Your task to perform on an android device: change keyboard looks Image 0: 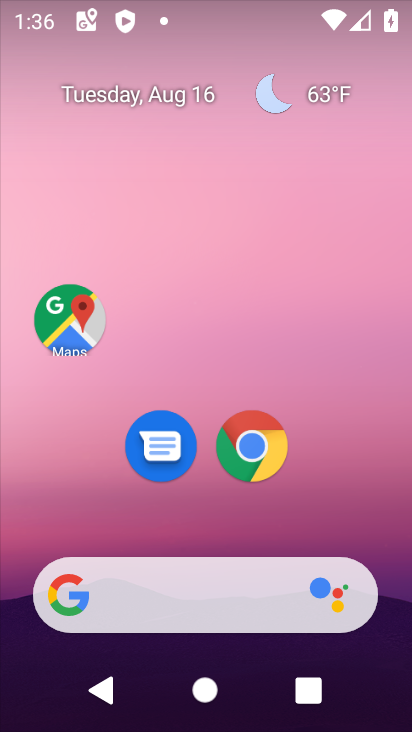
Step 0: press home button
Your task to perform on an android device: change keyboard looks Image 1: 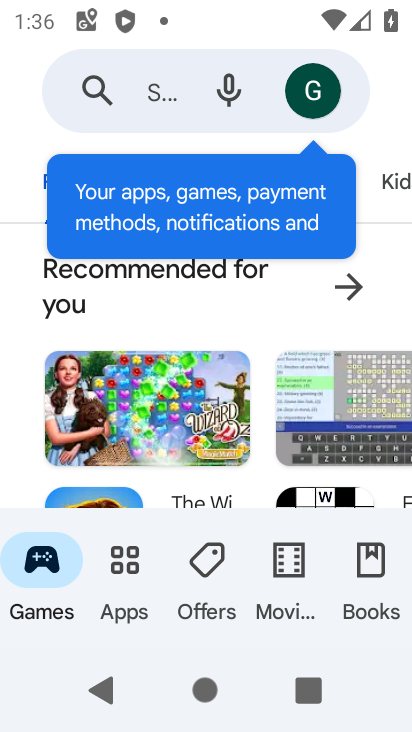
Step 1: drag from (224, 498) to (212, 42)
Your task to perform on an android device: change keyboard looks Image 2: 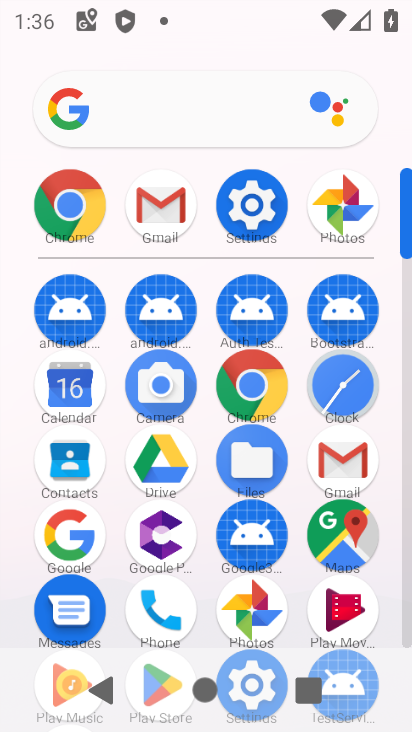
Step 2: click (250, 198)
Your task to perform on an android device: change keyboard looks Image 3: 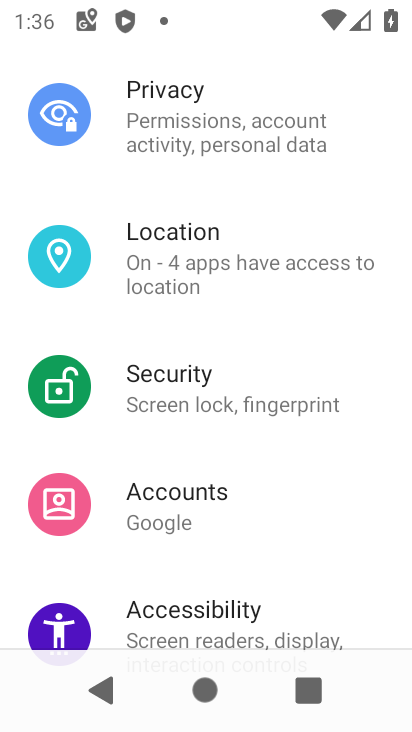
Step 3: drag from (104, 591) to (113, 21)
Your task to perform on an android device: change keyboard looks Image 4: 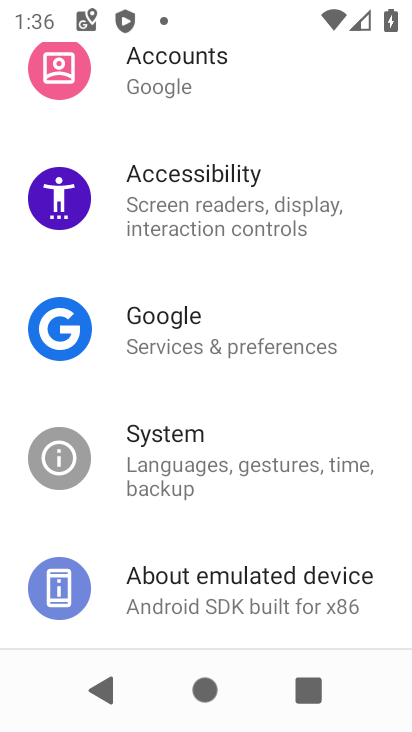
Step 4: click (105, 445)
Your task to perform on an android device: change keyboard looks Image 5: 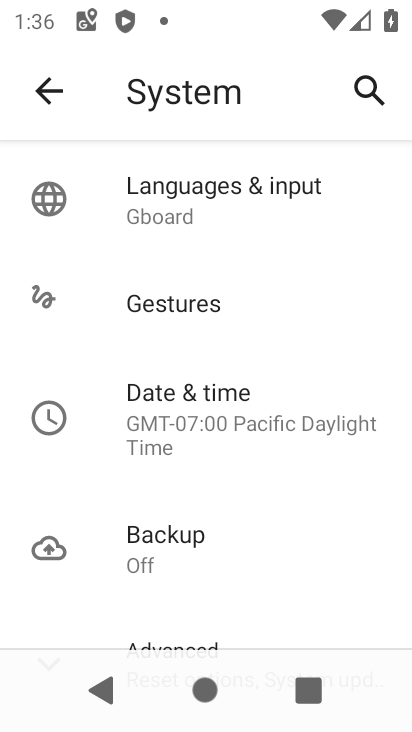
Step 5: drag from (102, 607) to (123, 573)
Your task to perform on an android device: change keyboard looks Image 6: 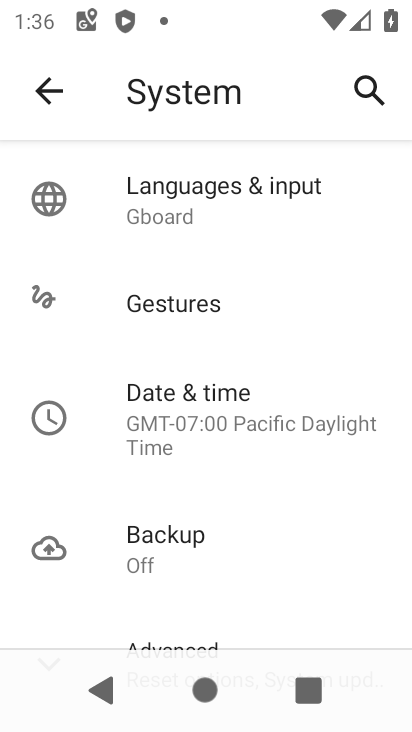
Step 6: click (100, 184)
Your task to perform on an android device: change keyboard looks Image 7: 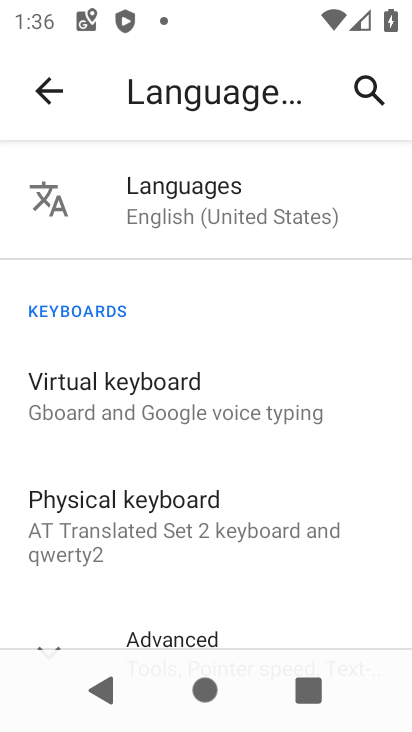
Step 7: click (209, 386)
Your task to perform on an android device: change keyboard looks Image 8: 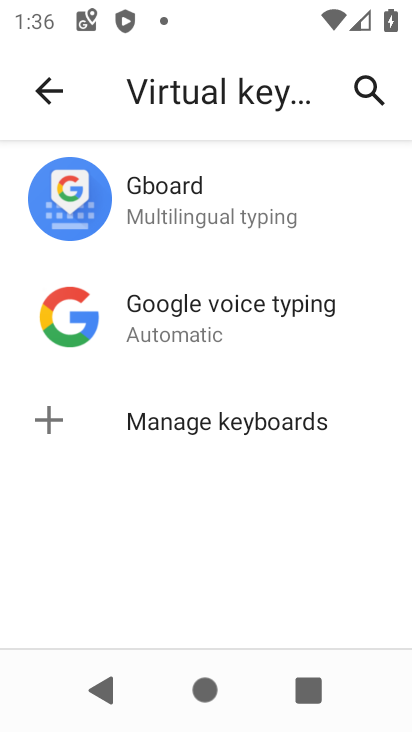
Step 8: click (159, 207)
Your task to perform on an android device: change keyboard looks Image 9: 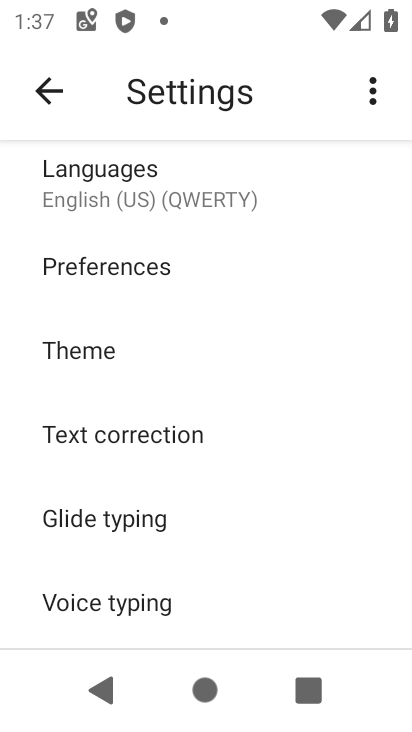
Step 9: click (129, 341)
Your task to perform on an android device: change keyboard looks Image 10: 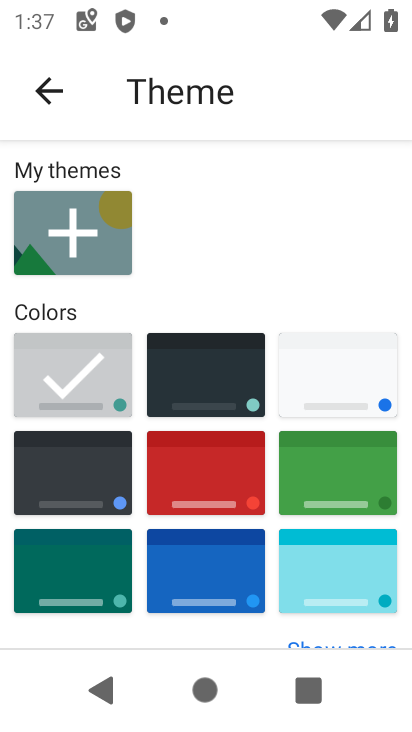
Step 10: click (219, 485)
Your task to perform on an android device: change keyboard looks Image 11: 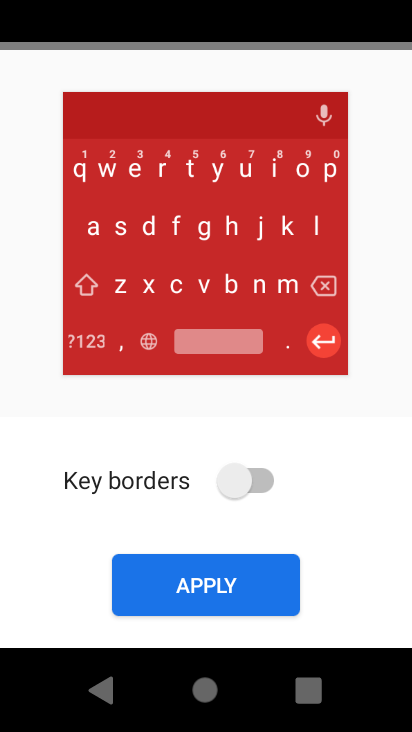
Step 11: click (227, 579)
Your task to perform on an android device: change keyboard looks Image 12: 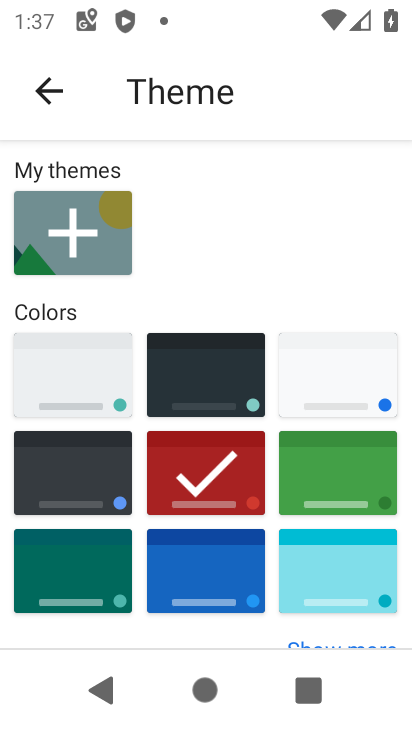
Step 12: task complete